Your task to perform on an android device: turn pop-ups off in chrome Image 0: 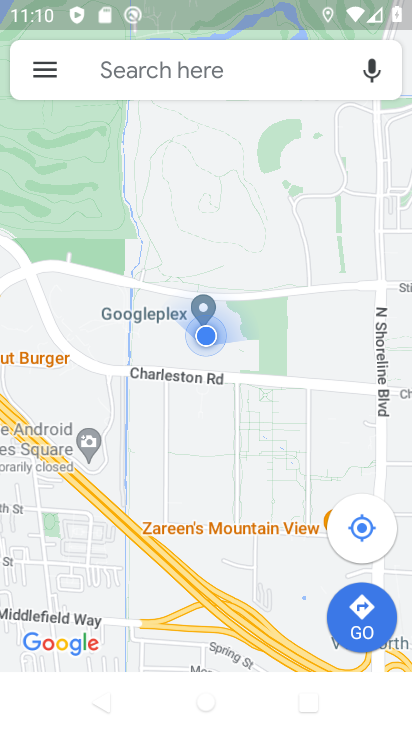
Step 0: press home button
Your task to perform on an android device: turn pop-ups off in chrome Image 1: 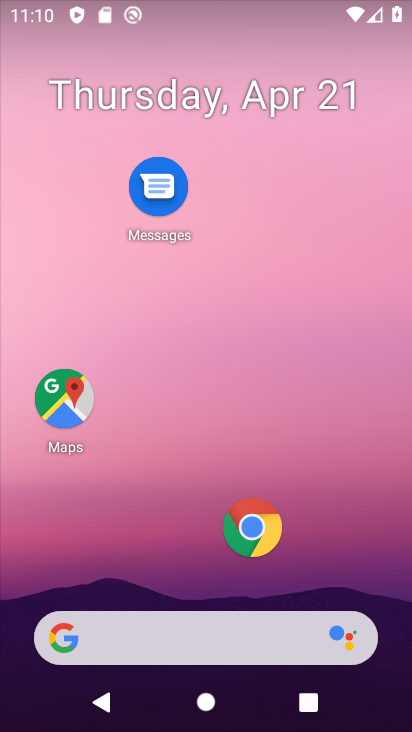
Step 1: click (258, 538)
Your task to perform on an android device: turn pop-ups off in chrome Image 2: 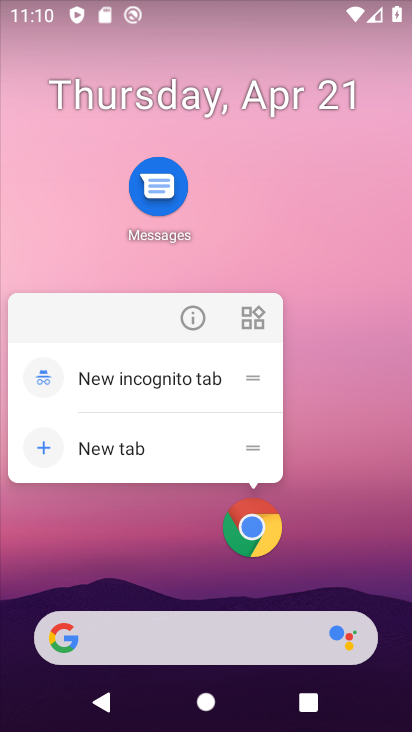
Step 2: click (230, 526)
Your task to perform on an android device: turn pop-ups off in chrome Image 3: 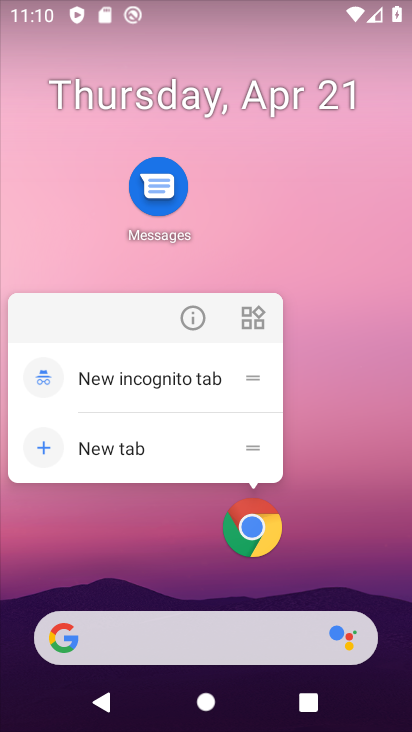
Step 3: click (272, 526)
Your task to perform on an android device: turn pop-ups off in chrome Image 4: 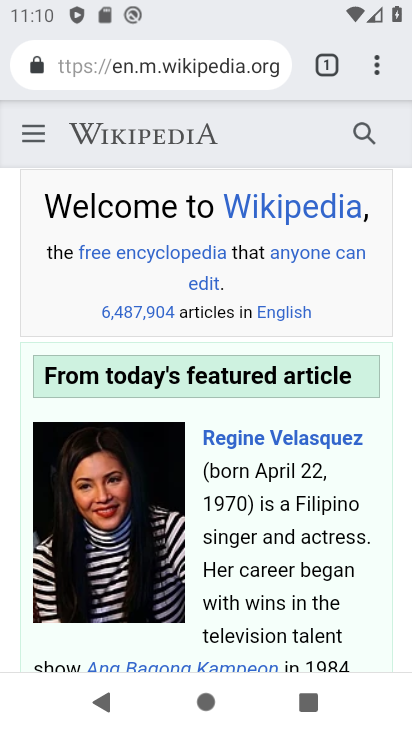
Step 4: drag from (371, 66) to (155, 589)
Your task to perform on an android device: turn pop-ups off in chrome Image 5: 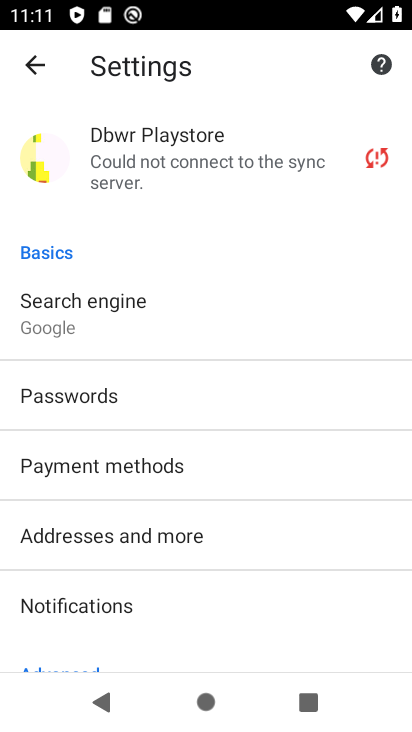
Step 5: drag from (233, 616) to (210, 110)
Your task to perform on an android device: turn pop-ups off in chrome Image 6: 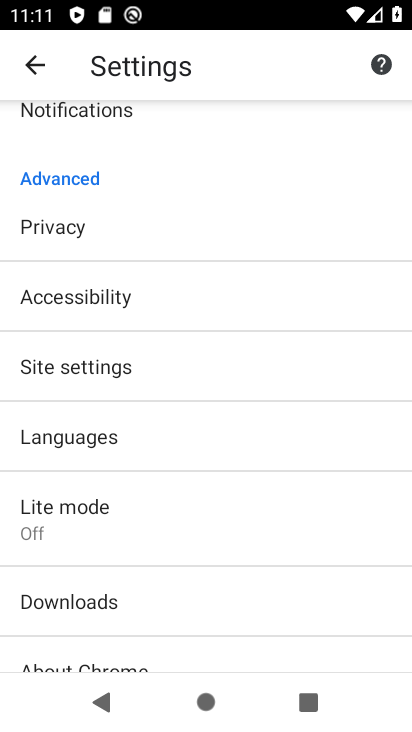
Step 6: click (85, 360)
Your task to perform on an android device: turn pop-ups off in chrome Image 7: 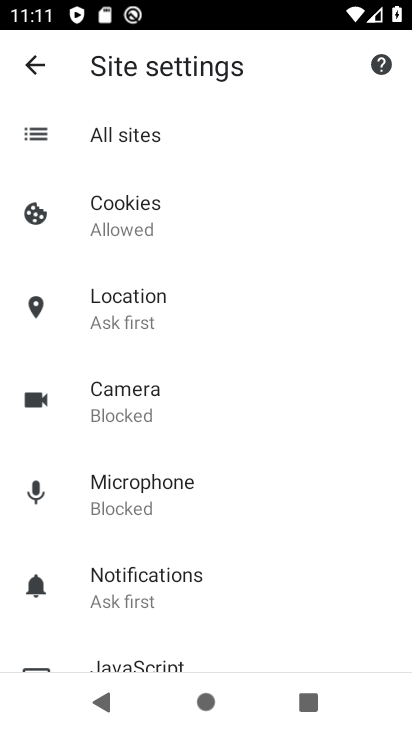
Step 7: drag from (279, 604) to (250, 137)
Your task to perform on an android device: turn pop-ups off in chrome Image 8: 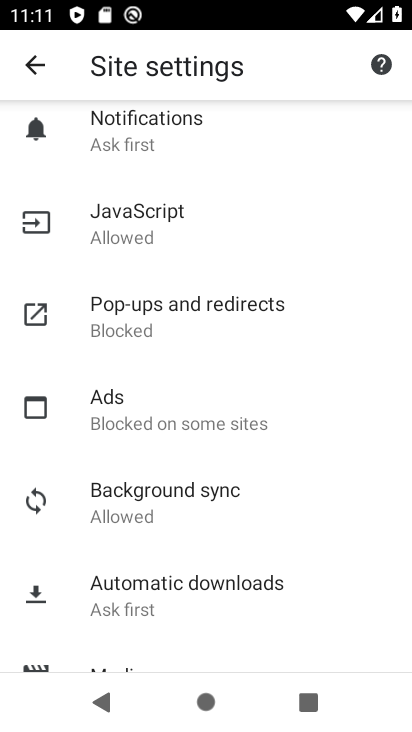
Step 8: click (159, 302)
Your task to perform on an android device: turn pop-ups off in chrome Image 9: 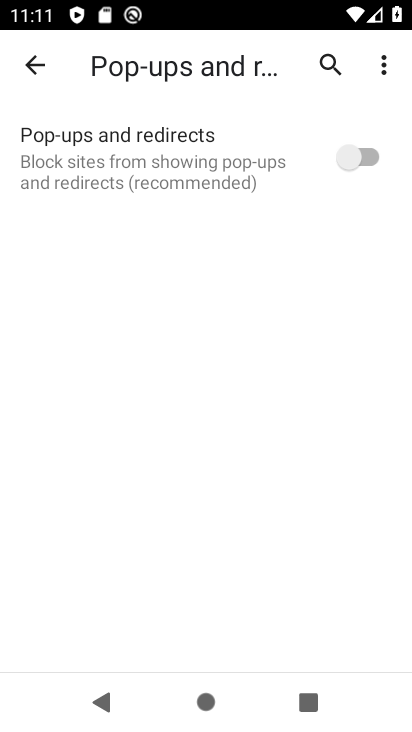
Step 9: task complete